Your task to perform on an android device: Go to network settings Image 0: 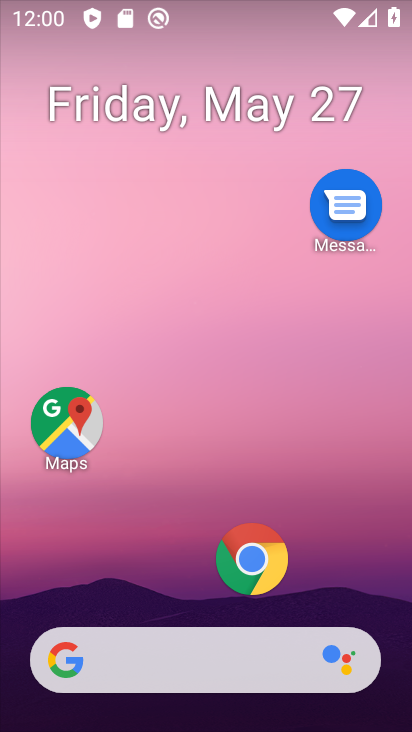
Step 0: drag from (278, 548) to (403, 204)
Your task to perform on an android device: Go to network settings Image 1: 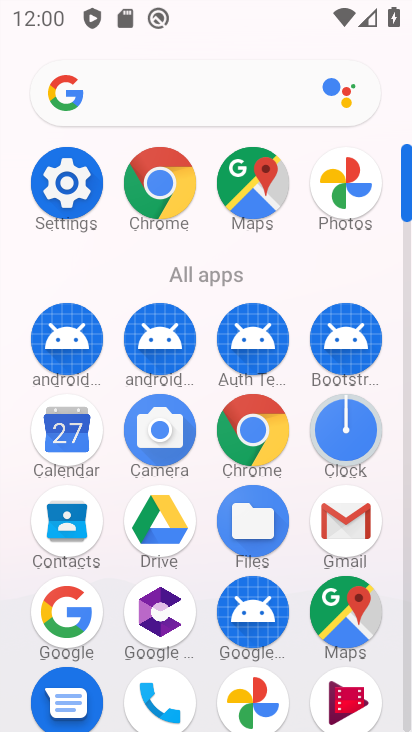
Step 1: click (70, 207)
Your task to perform on an android device: Go to network settings Image 2: 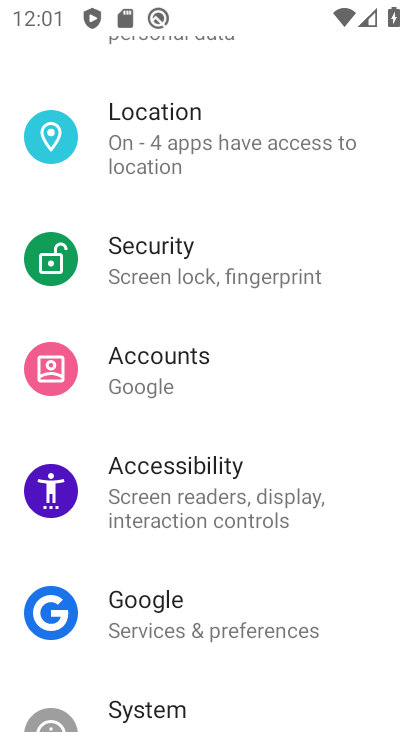
Step 2: drag from (180, 383) to (219, 149)
Your task to perform on an android device: Go to network settings Image 3: 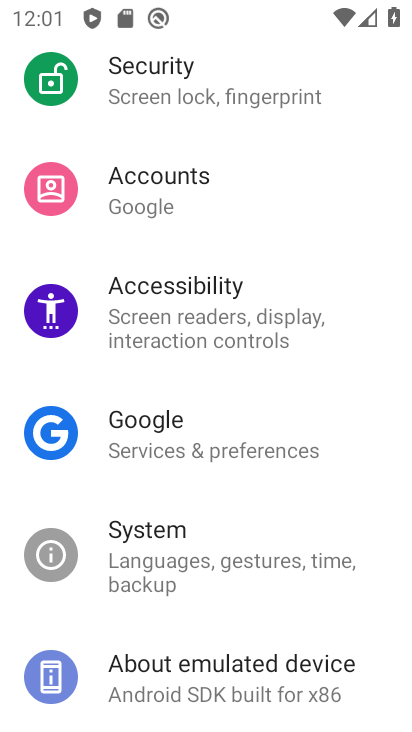
Step 3: drag from (254, 236) to (203, 728)
Your task to perform on an android device: Go to network settings Image 4: 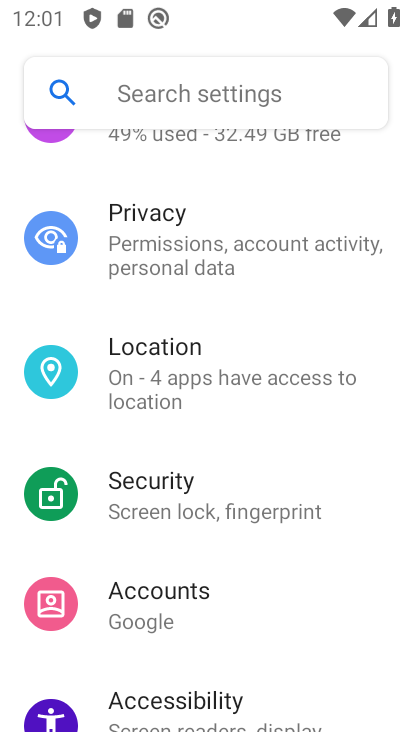
Step 4: drag from (253, 241) to (193, 720)
Your task to perform on an android device: Go to network settings Image 5: 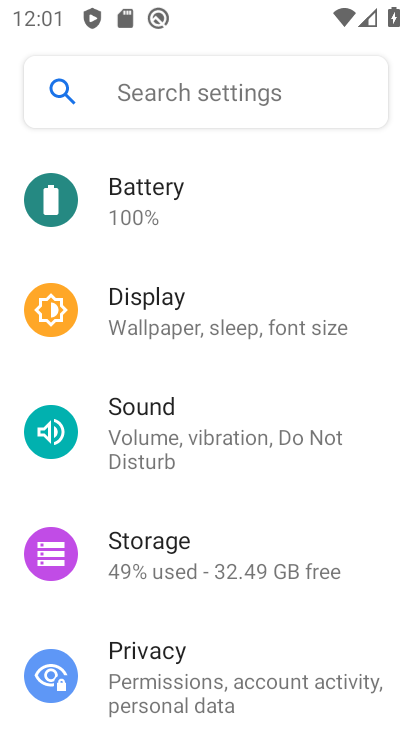
Step 5: drag from (212, 305) to (171, 723)
Your task to perform on an android device: Go to network settings Image 6: 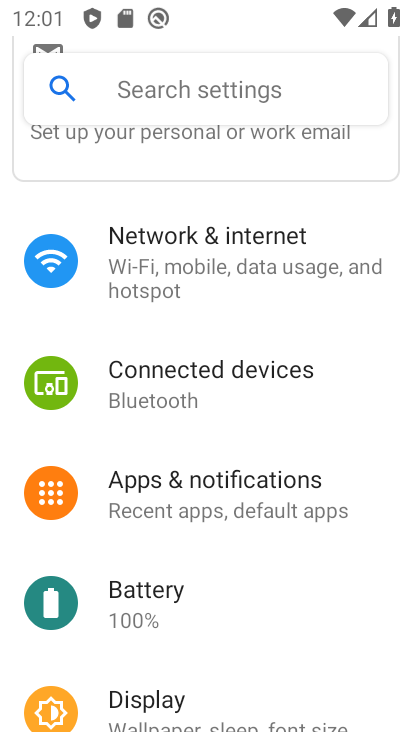
Step 6: click (212, 277)
Your task to perform on an android device: Go to network settings Image 7: 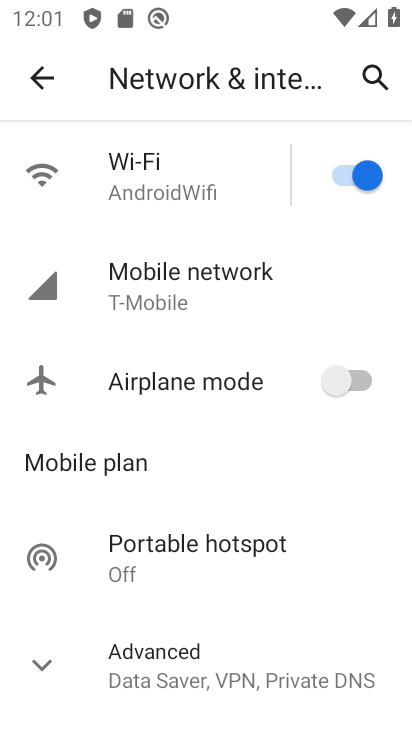
Step 7: click (169, 313)
Your task to perform on an android device: Go to network settings Image 8: 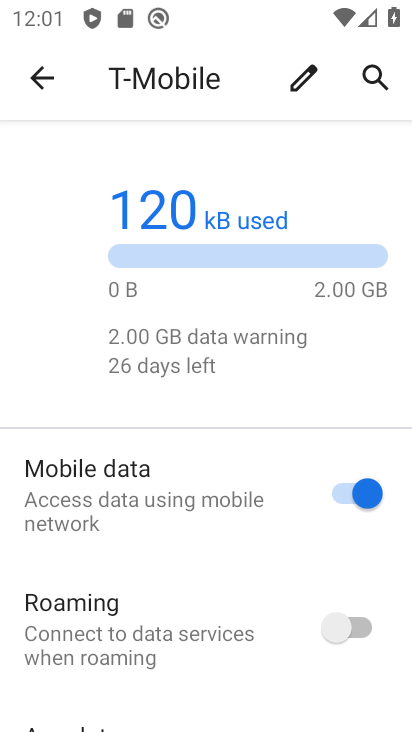
Step 8: task complete